Your task to perform on an android device: all mails in gmail Image 0: 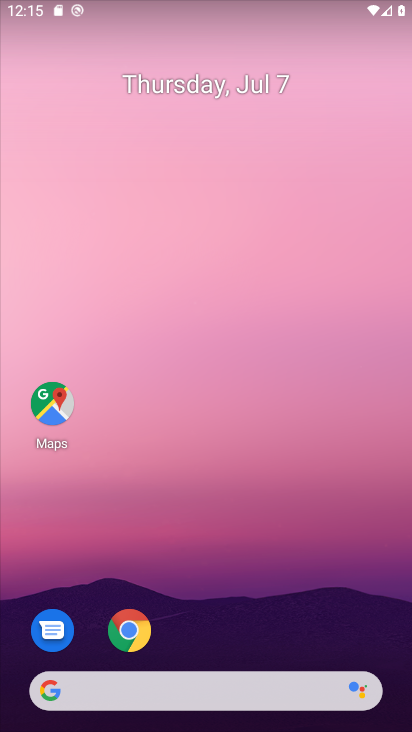
Step 0: drag from (250, 589) to (253, 212)
Your task to perform on an android device: all mails in gmail Image 1: 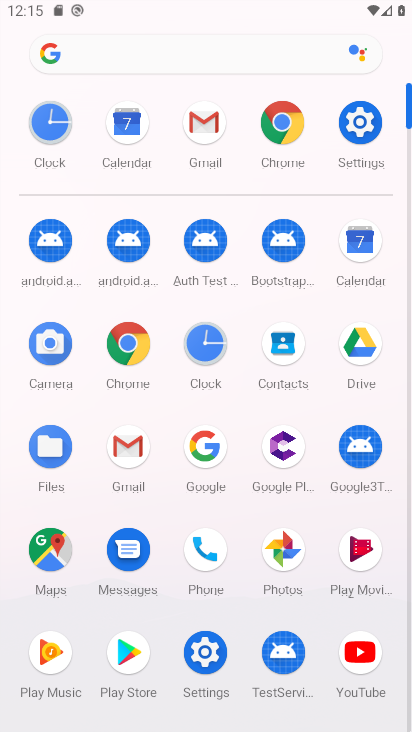
Step 1: click (205, 106)
Your task to perform on an android device: all mails in gmail Image 2: 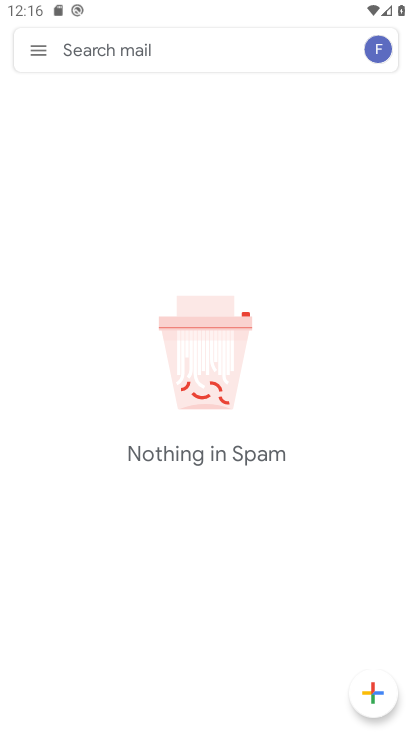
Step 2: task complete